Your task to perform on an android device: find which apps use the phone's location Image 0: 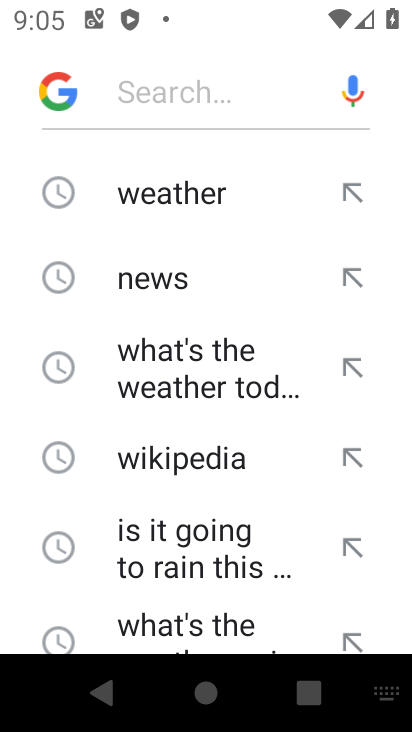
Step 0: press home button
Your task to perform on an android device: find which apps use the phone's location Image 1: 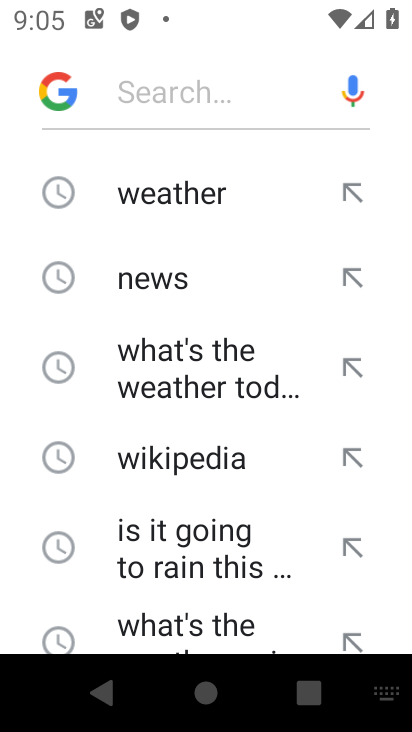
Step 1: type "recent "
Your task to perform on an android device: find which apps use the phone's location Image 2: 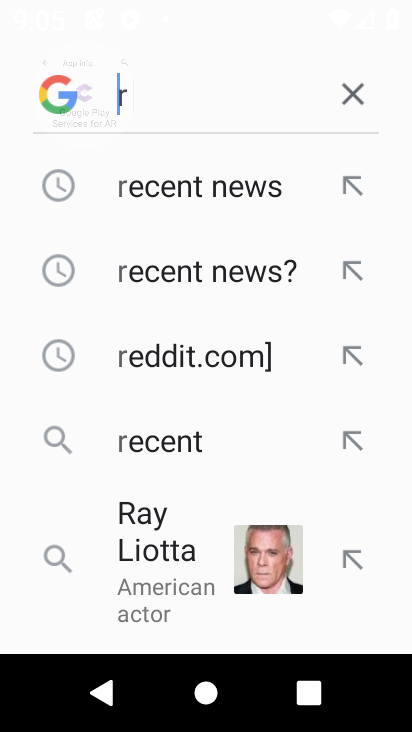
Step 2: press home button
Your task to perform on an android device: find which apps use the phone's location Image 3: 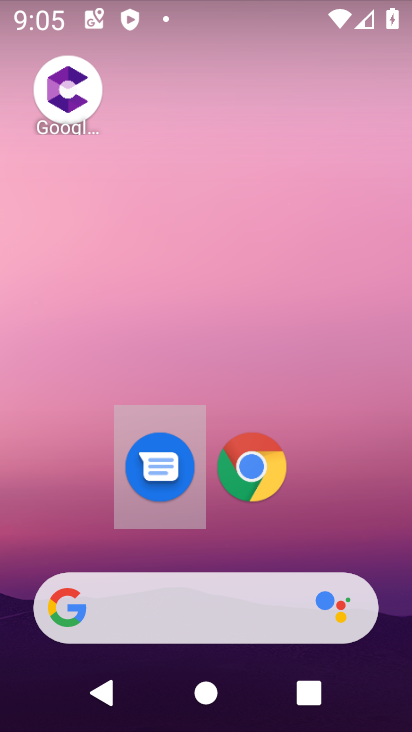
Step 3: drag from (395, 528) to (322, 10)
Your task to perform on an android device: find which apps use the phone's location Image 4: 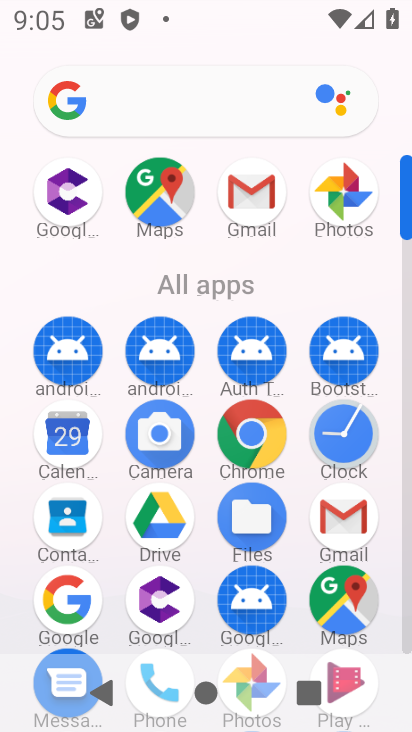
Step 4: click (410, 638)
Your task to perform on an android device: find which apps use the phone's location Image 5: 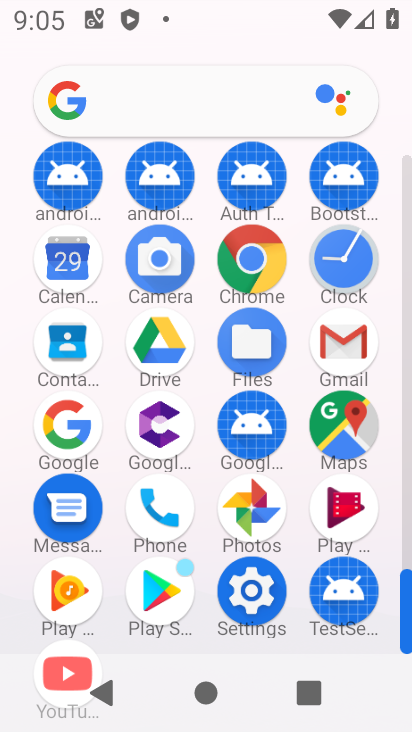
Step 5: click (259, 589)
Your task to perform on an android device: find which apps use the phone's location Image 6: 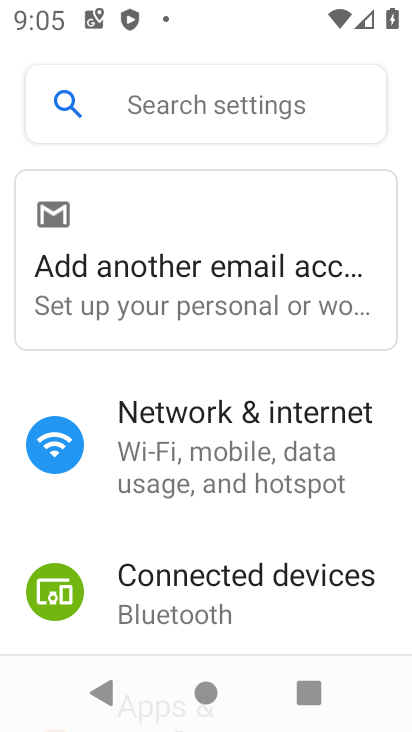
Step 6: drag from (259, 629) to (244, 152)
Your task to perform on an android device: find which apps use the phone's location Image 7: 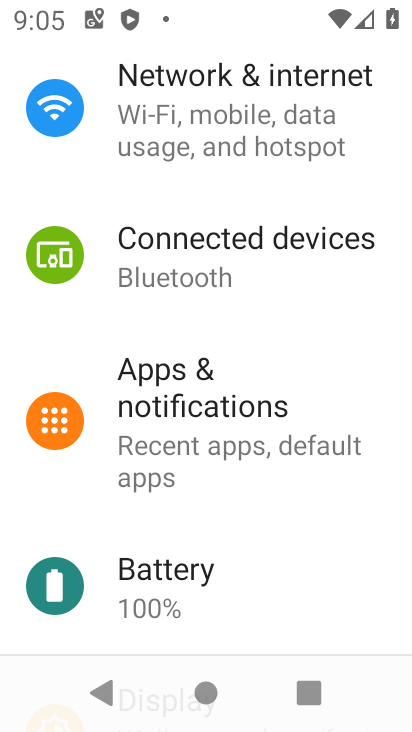
Step 7: drag from (295, 530) to (256, 294)
Your task to perform on an android device: find which apps use the phone's location Image 8: 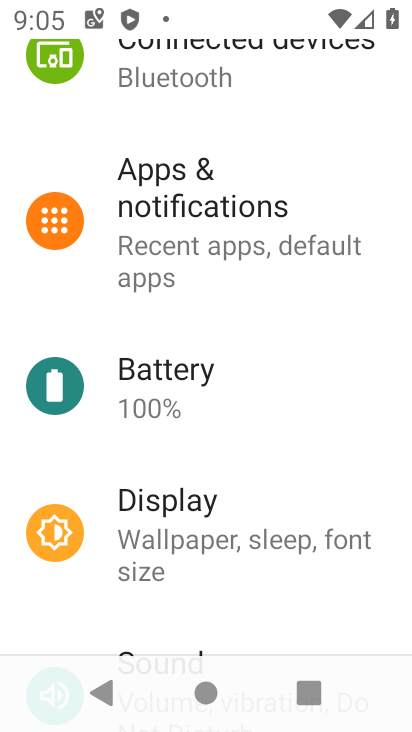
Step 8: drag from (281, 600) to (258, 235)
Your task to perform on an android device: find which apps use the phone's location Image 9: 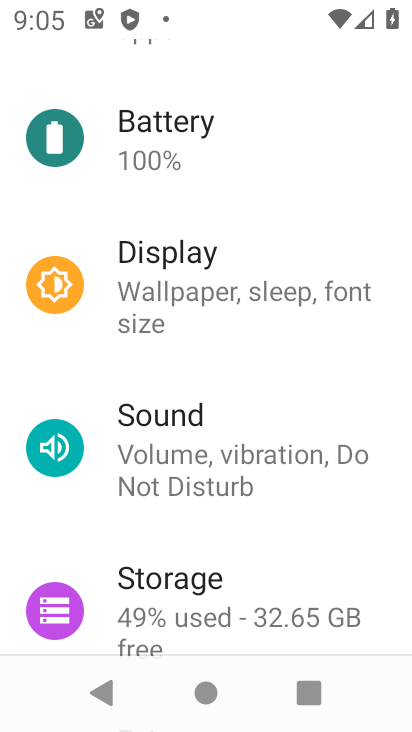
Step 9: drag from (271, 535) to (215, 187)
Your task to perform on an android device: find which apps use the phone's location Image 10: 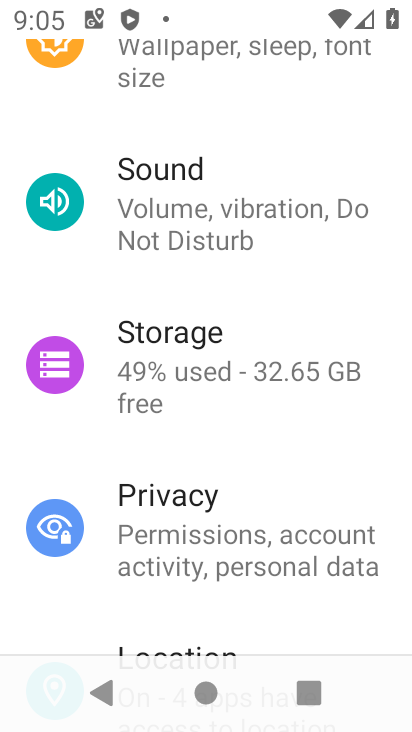
Step 10: drag from (243, 650) to (203, 377)
Your task to perform on an android device: find which apps use the phone's location Image 11: 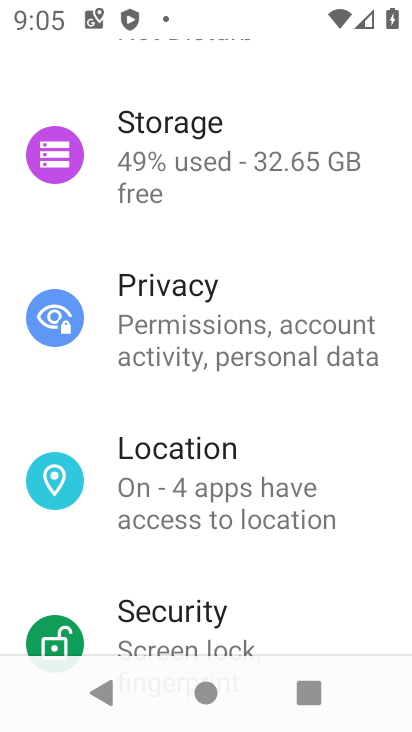
Step 11: click (247, 506)
Your task to perform on an android device: find which apps use the phone's location Image 12: 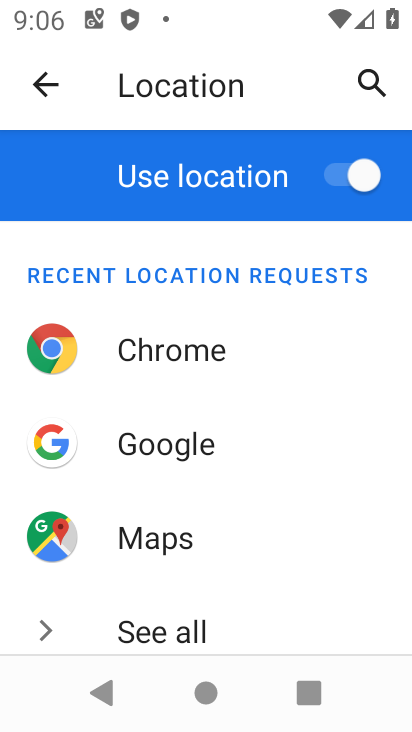
Step 12: drag from (232, 553) to (277, 233)
Your task to perform on an android device: find which apps use the phone's location Image 13: 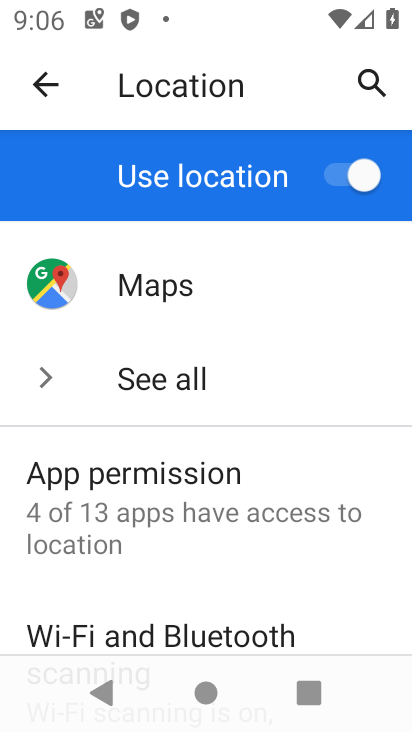
Step 13: click (349, 458)
Your task to perform on an android device: find which apps use the phone's location Image 14: 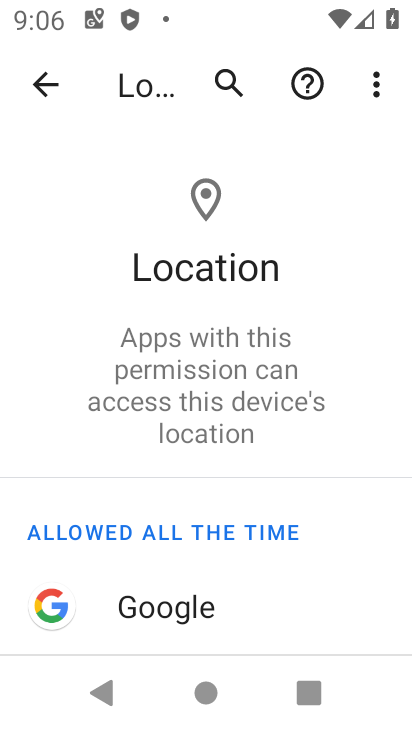
Step 14: task complete